Your task to perform on an android device: Go to display settings Image 0: 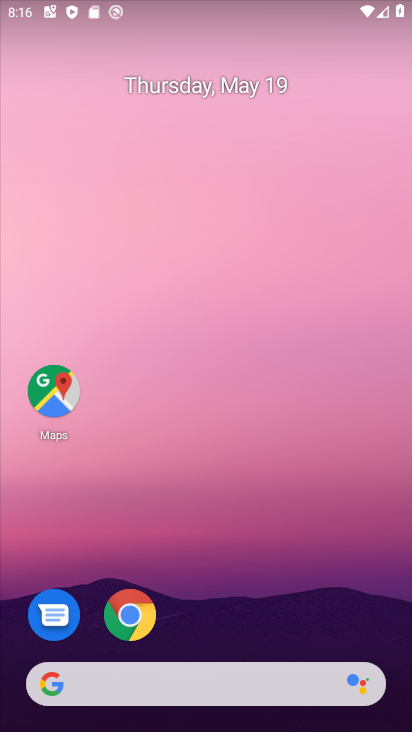
Step 0: drag from (232, 609) to (298, 99)
Your task to perform on an android device: Go to display settings Image 1: 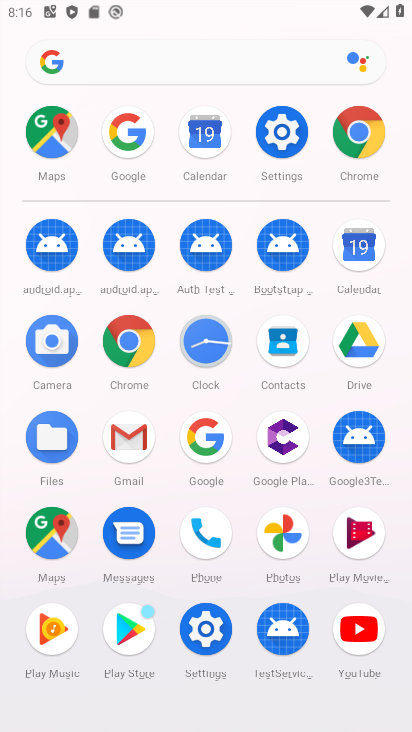
Step 1: click (279, 131)
Your task to perform on an android device: Go to display settings Image 2: 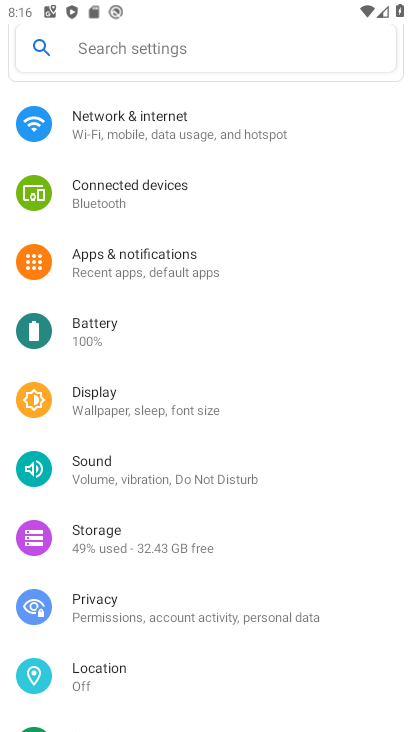
Step 2: click (112, 398)
Your task to perform on an android device: Go to display settings Image 3: 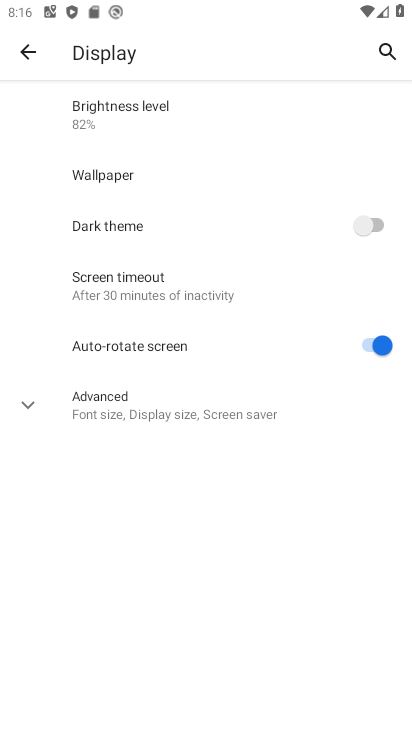
Step 3: task complete